Your task to perform on an android device: turn off notifications in google photos Image 0: 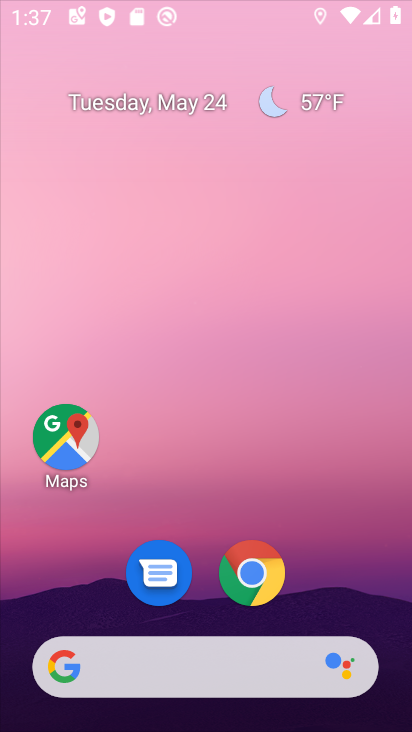
Step 0: drag from (308, 588) to (352, 137)
Your task to perform on an android device: turn off notifications in google photos Image 1: 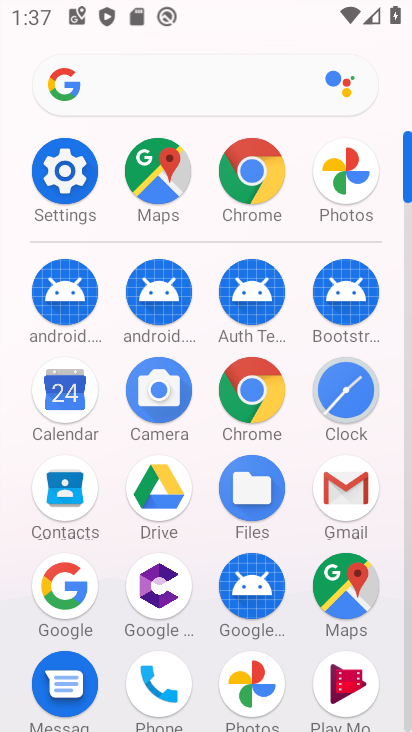
Step 1: click (245, 682)
Your task to perform on an android device: turn off notifications in google photos Image 2: 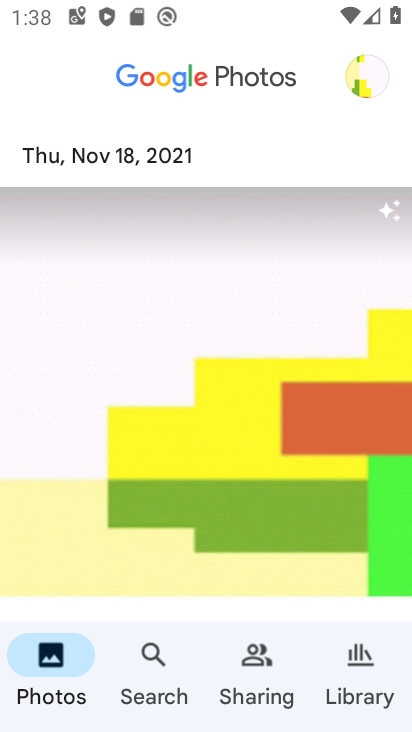
Step 2: drag from (391, 49) to (357, 222)
Your task to perform on an android device: turn off notifications in google photos Image 3: 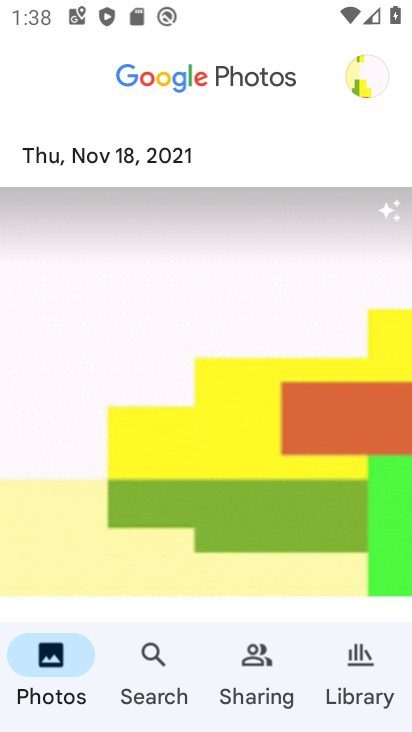
Step 3: click (364, 63)
Your task to perform on an android device: turn off notifications in google photos Image 4: 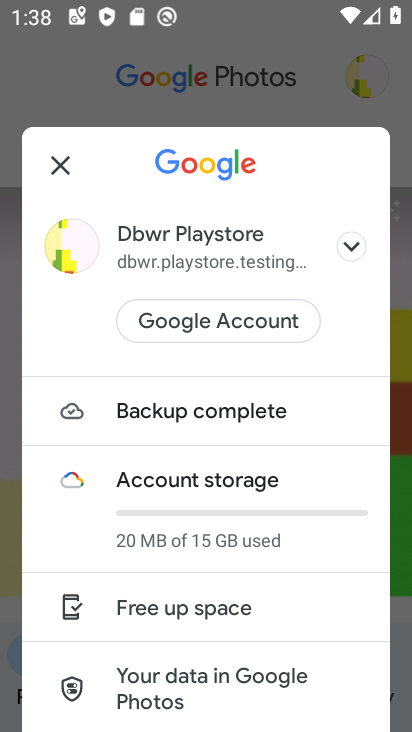
Step 4: drag from (232, 659) to (266, 323)
Your task to perform on an android device: turn off notifications in google photos Image 5: 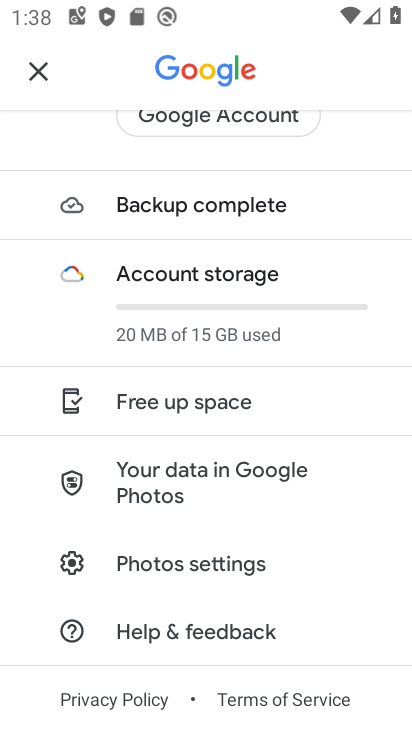
Step 5: click (238, 560)
Your task to perform on an android device: turn off notifications in google photos Image 6: 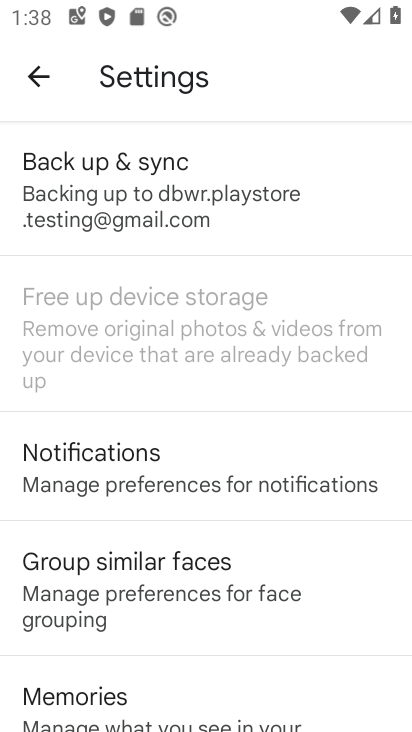
Step 6: click (204, 488)
Your task to perform on an android device: turn off notifications in google photos Image 7: 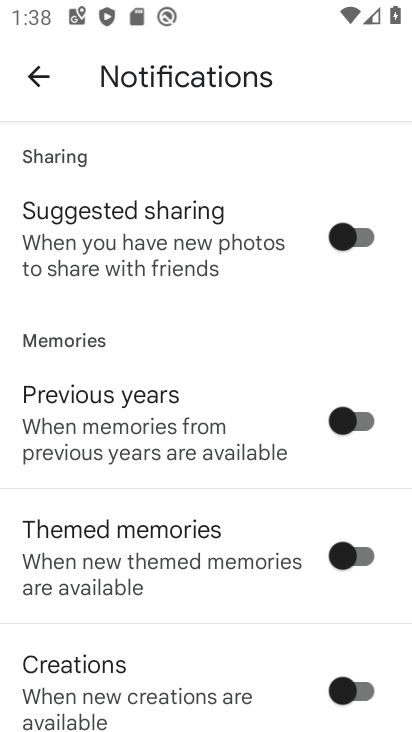
Step 7: drag from (190, 679) to (204, 316)
Your task to perform on an android device: turn off notifications in google photos Image 8: 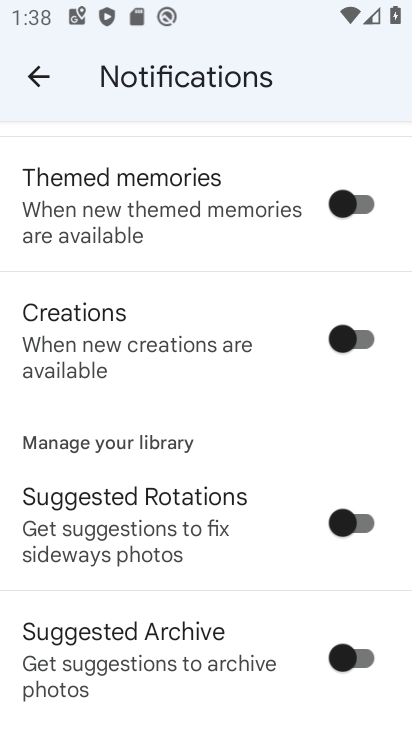
Step 8: drag from (208, 576) to (239, 208)
Your task to perform on an android device: turn off notifications in google photos Image 9: 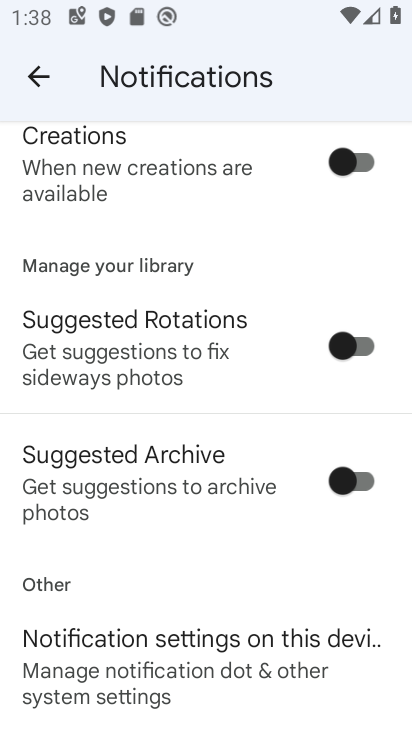
Step 9: click (193, 669)
Your task to perform on an android device: turn off notifications in google photos Image 10: 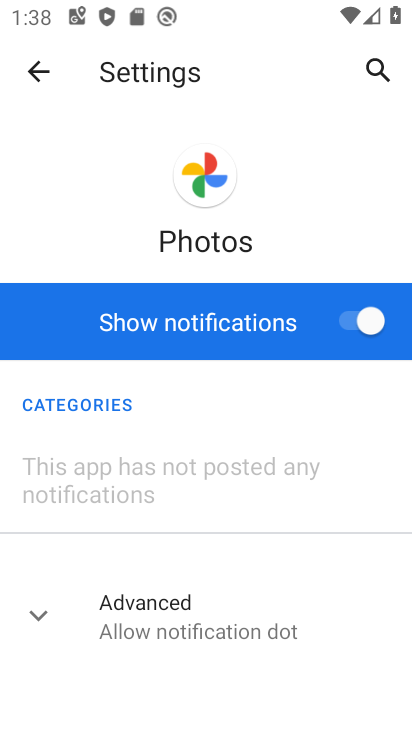
Step 10: click (349, 323)
Your task to perform on an android device: turn off notifications in google photos Image 11: 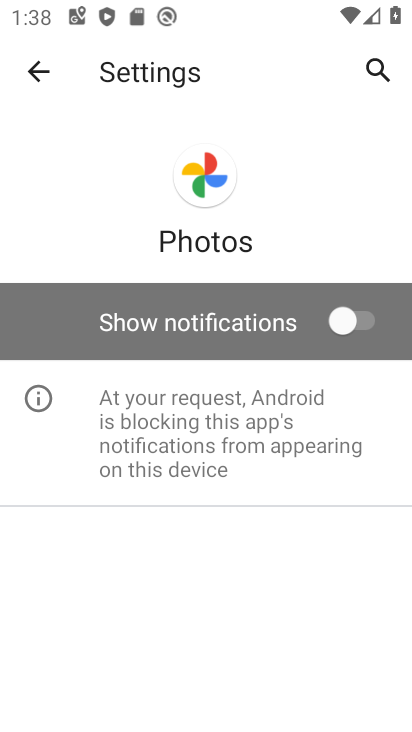
Step 11: task complete